Your task to perform on an android device: What's on my calendar today? Image 0: 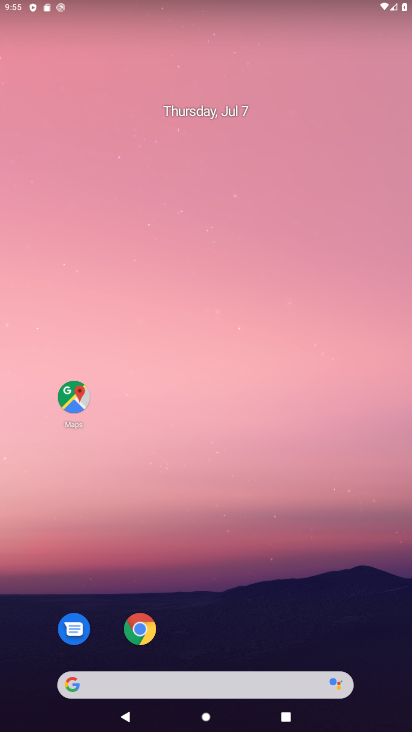
Step 0: drag from (380, 656) to (369, 192)
Your task to perform on an android device: What's on my calendar today? Image 1: 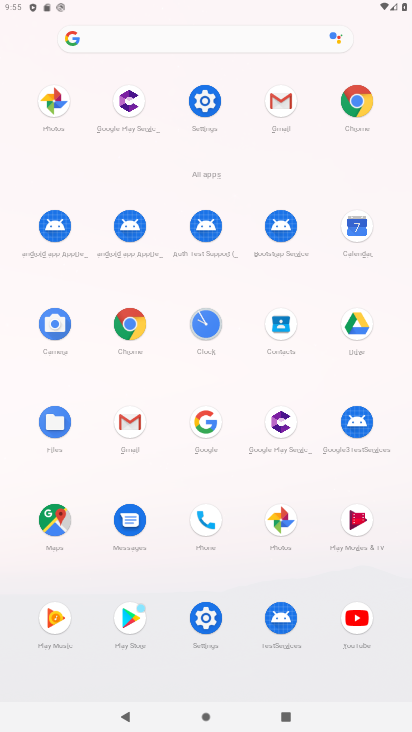
Step 1: click (358, 224)
Your task to perform on an android device: What's on my calendar today? Image 2: 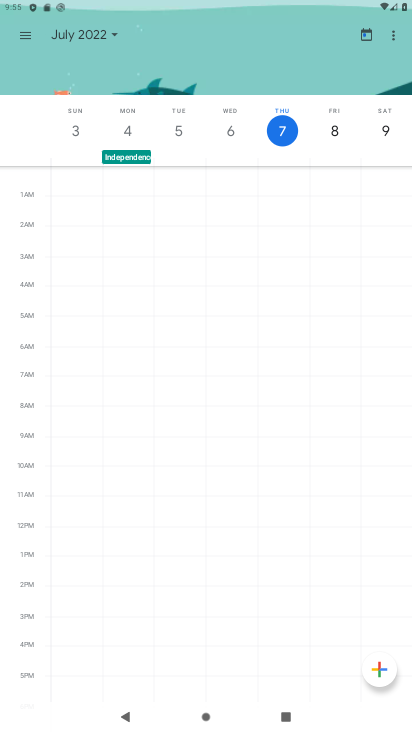
Step 2: click (21, 32)
Your task to perform on an android device: What's on my calendar today? Image 3: 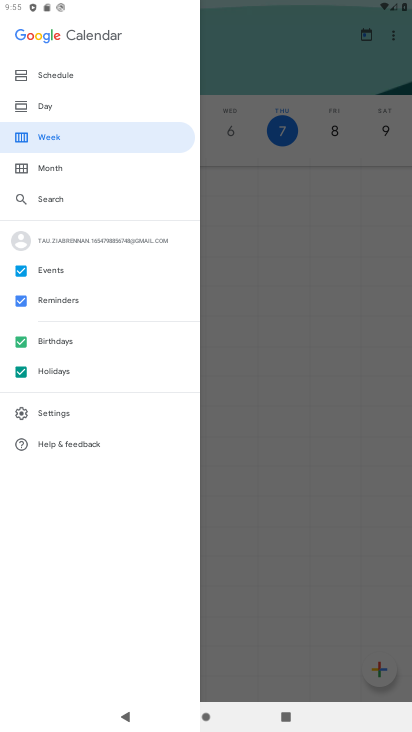
Step 3: click (46, 101)
Your task to perform on an android device: What's on my calendar today? Image 4: 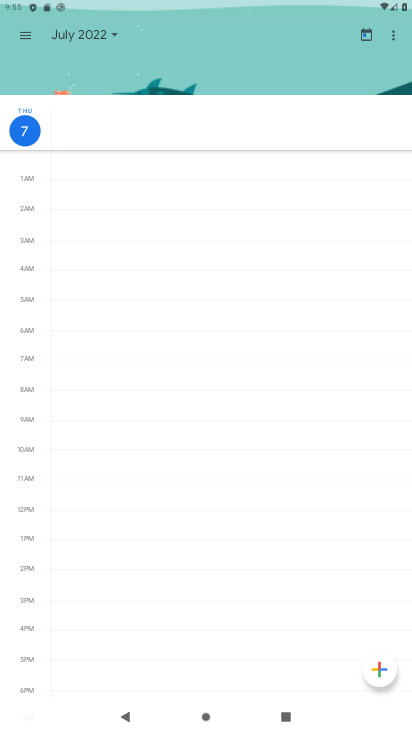
Step 4: click (112, 33)
Your task to perform on an android device: What's on my calendar today? Image 5: 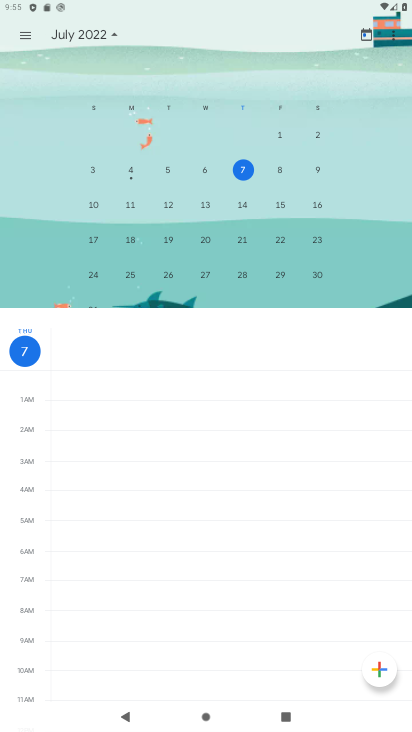
Step 5: task complete